Your task to perform on an android device: change your default location settings in chrome Image 0: 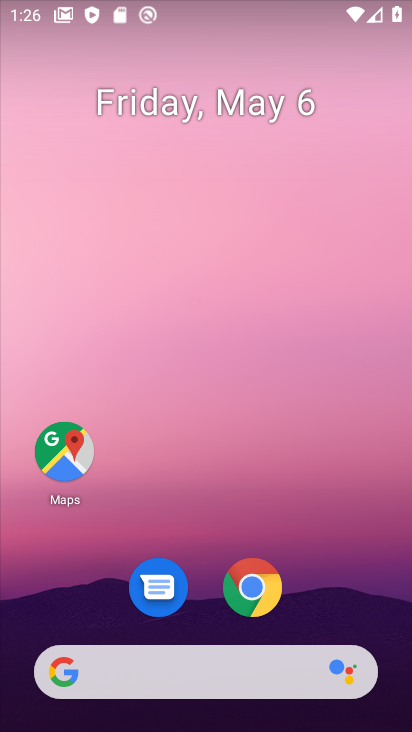
Step 0: drag from (361, 555) to (366, 98)
Your task to perform on an android device: change your default location settings in chrome Image 1: 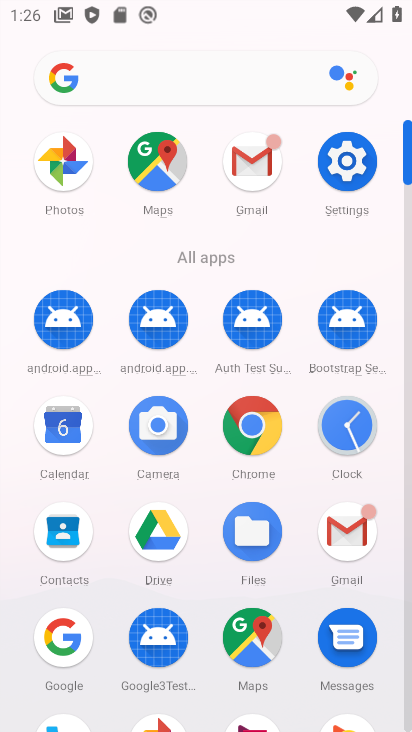
Step 1: click (242, 410)
Your task to perform on an android device: change your default location settings in chrome Image 2: 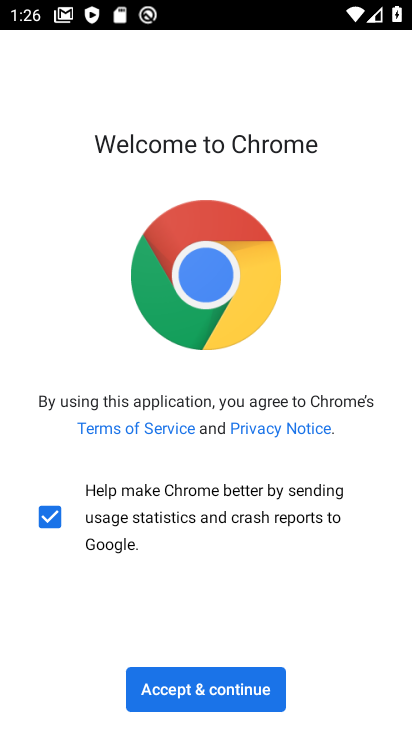
Step 2: click (231, 700)
Your task to perform on an android device: change your default location settings in chrome Image 3: 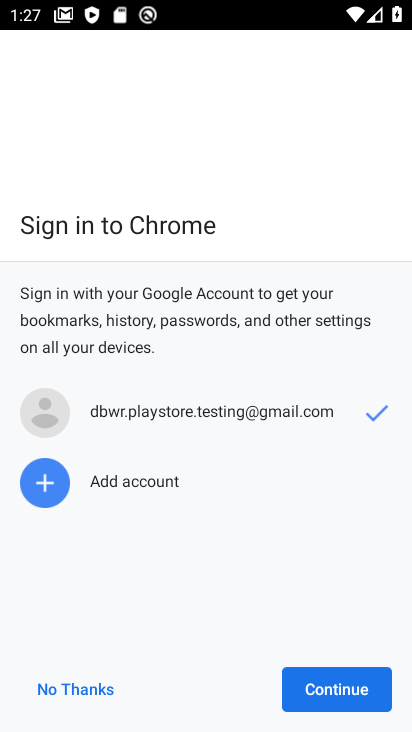
Step 3: click (326, 702)
Your task to perform on an android device: change your default location settings in chrome Image 4: 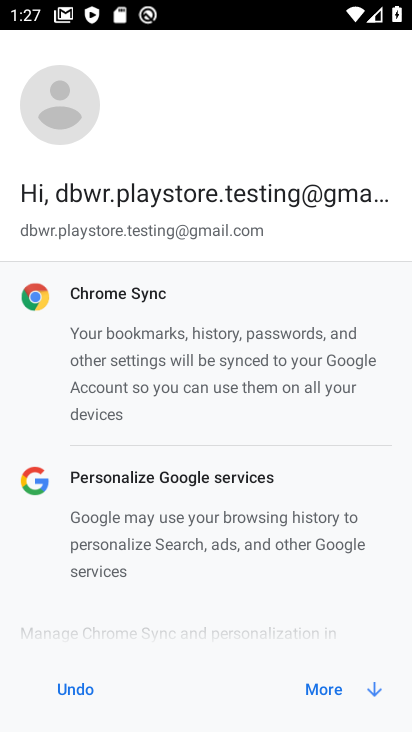
Step 4: click (330, 687)
Your task to perform on an android device: change your default location settings in chrome Image 5: 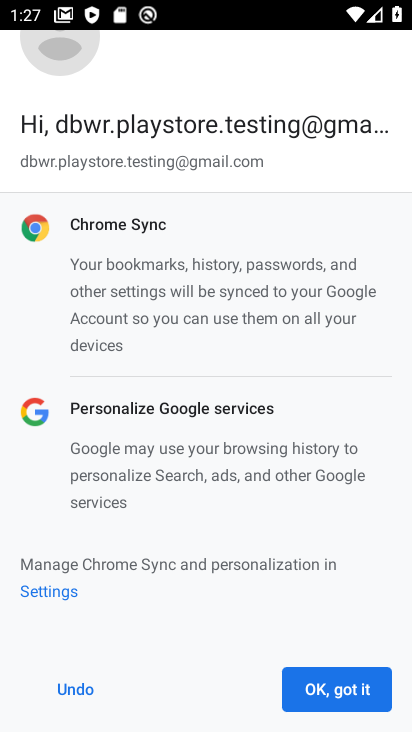
Step 5: click (352, 691)
Your task to perform on an android device: change your default location settings in chrome Image 6: 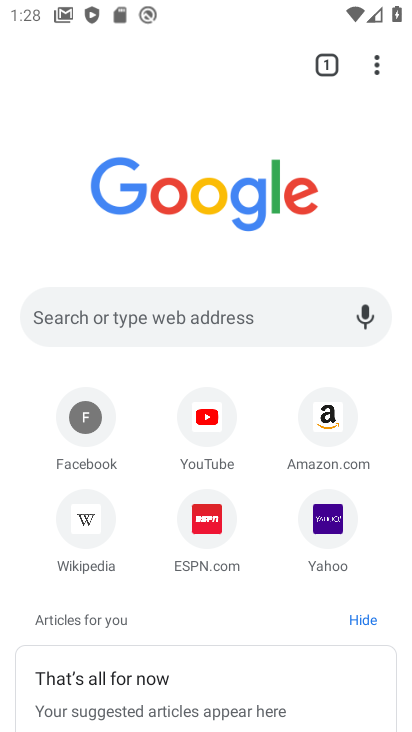
Step 6: drag from (385, 67) to (154, 541)
Your task to perform on an android device: change your default location settings in chrome Image 7: 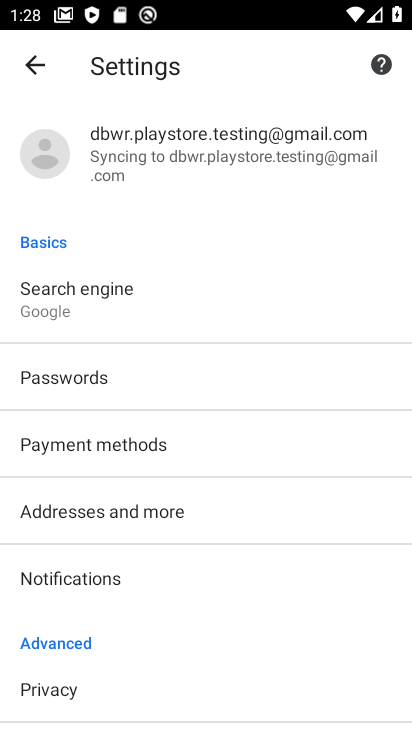
Step 7: drag from (198, 646) to (261, 380)
Your task to perform on an android device: change your default location settings in chrome Image 8: 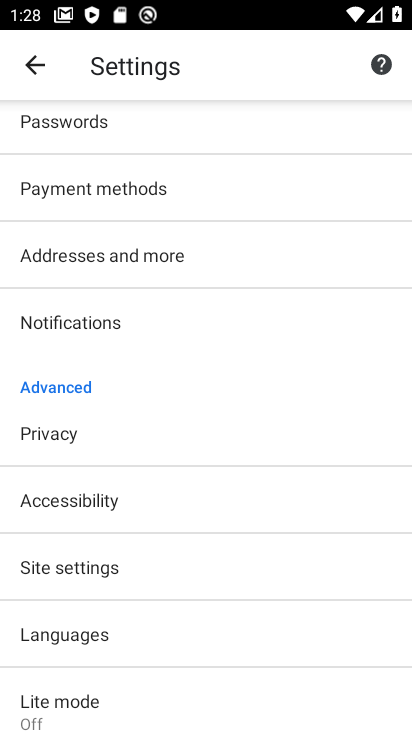
Step 8: drag from (165, 622) to (228, 382)
Your task to perform on an android device: change your default location settings in chrome Image 9: 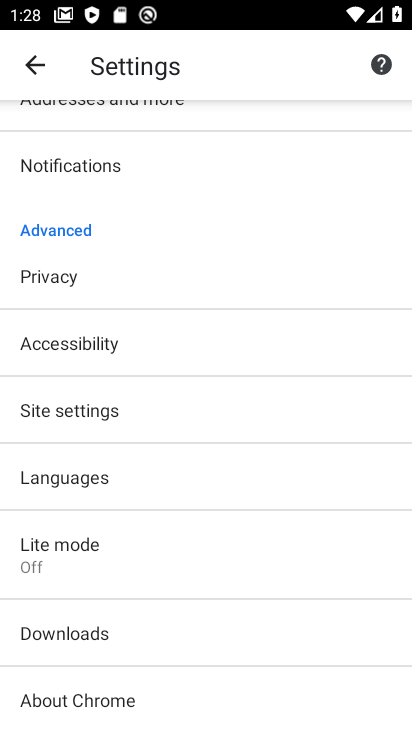
Step 9: click (93, 418)
Your task to perform on an android device: change your default location settings in chrome Image 10: 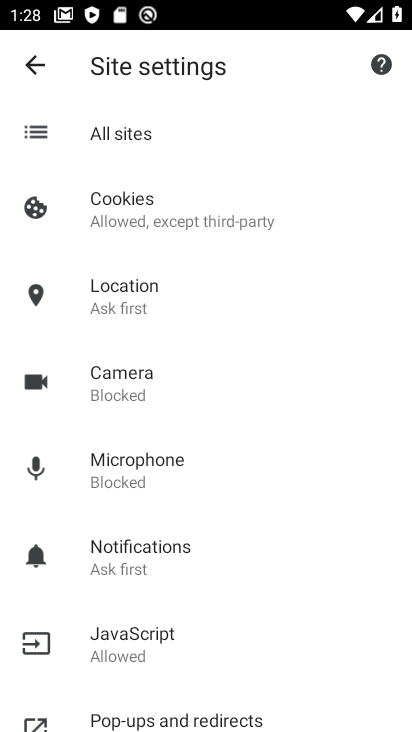
Step 10: click (114, 295)
Your task to perform on an android device: change your default location settings in chrome Image 11: 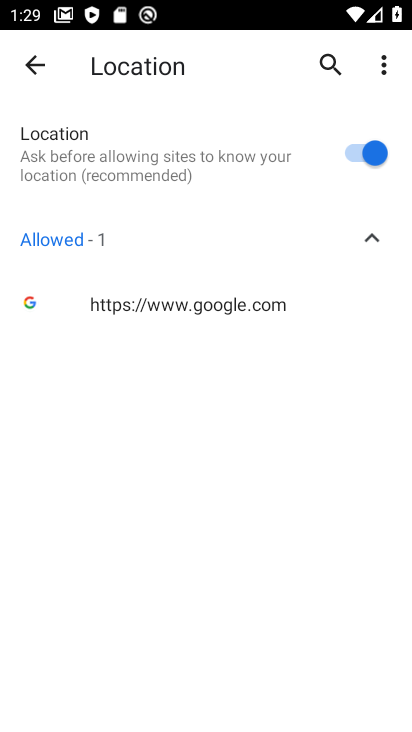
Step 11: click (352, 143)
Your task to perform on an android device: change your default location settings in chrome Image 12: 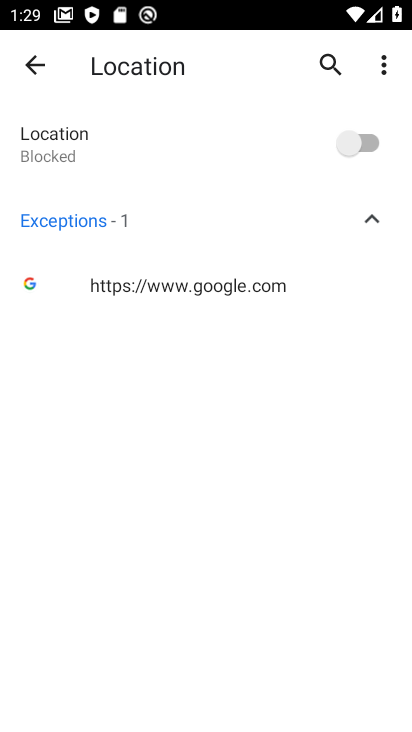
Step 12: task complete